Your task to perform on an android device: open app "Google Duo" (install if not already installed) Image 0: 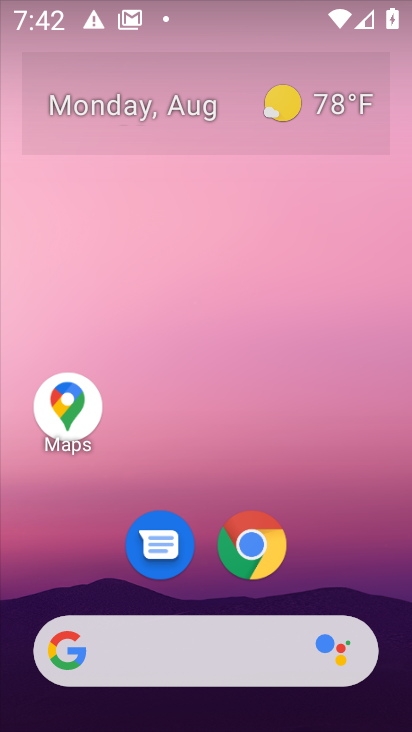
Step 0: press home button
Your task to perform on an android device: open app "Google Duo" (install if not already installed) Image 1: 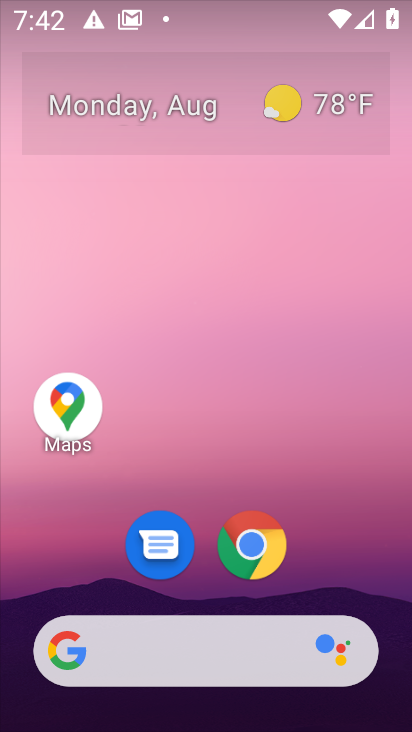
Step 1: drag from (364, 591) to (369, 129)
Your task to perform on an android device: open app "Google Duo" (install if not already installed) Image 2: 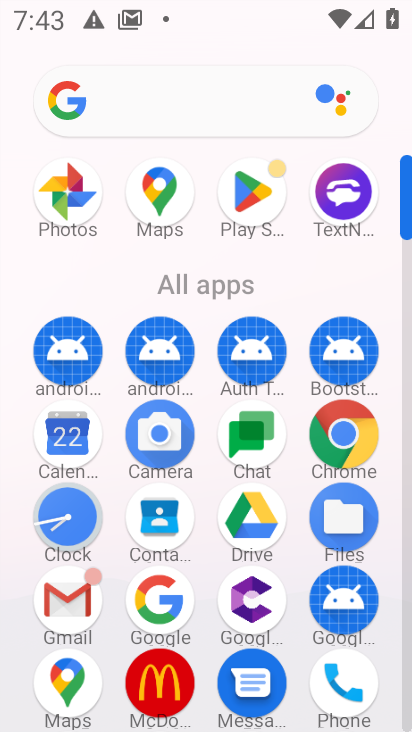
Step 2: click (256, 195)
Your task to perform on an android device: open app "Google Duo" (install if not already installed) Image 3: 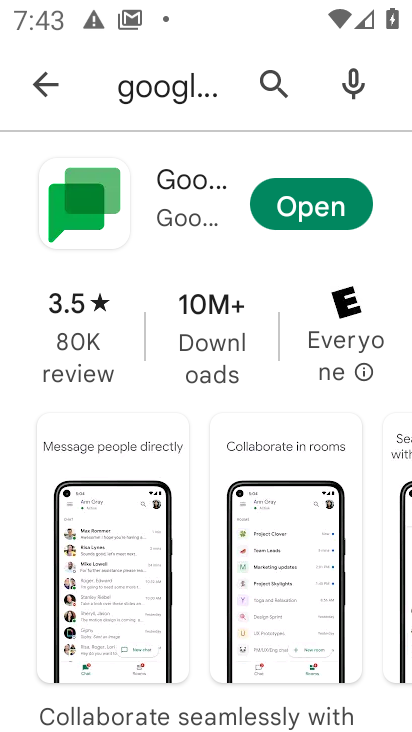
Step 3: press back button
Your task to perform on an android device: open app "Google Duo" (install if not already installed) Image 4: 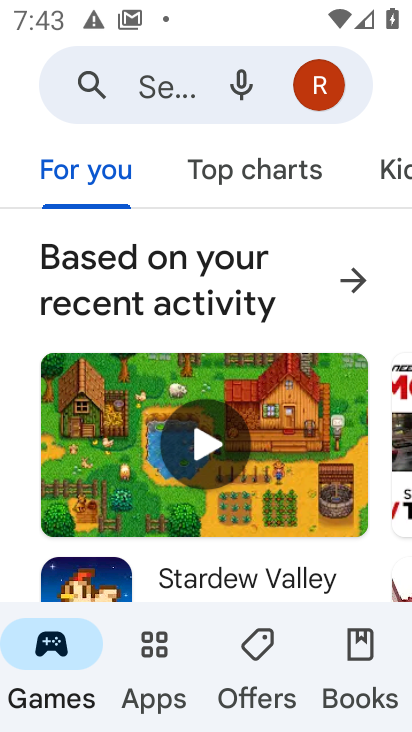
Step 4: click (159, 87)
Your task to perform on an android device: open app "Google Duo" (install if not already installed) Image 5: 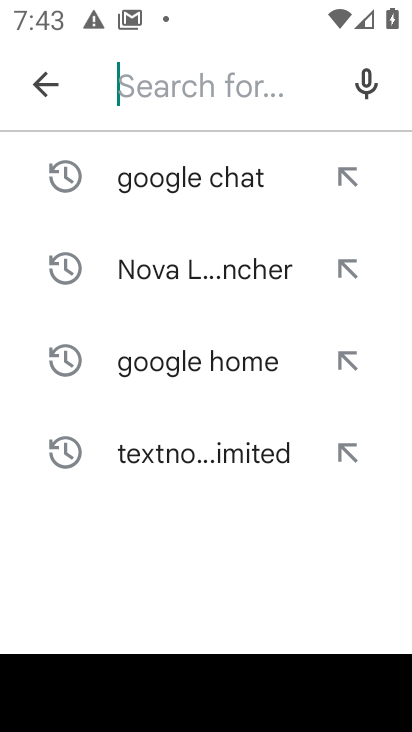
Step 5: press enter
Your task to perform on an android device: open app "Google Duo" (install if not already installed) Image 6: 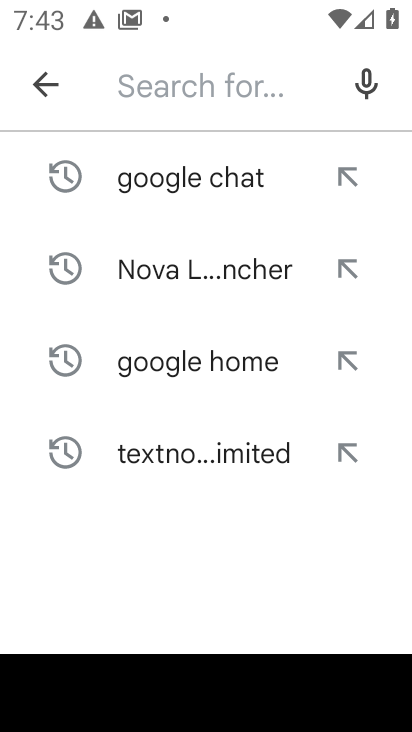
Step 6: type "google duo"
Your task to perform on an android device: open app "Google Duo" (install if not already installed) Image 7: 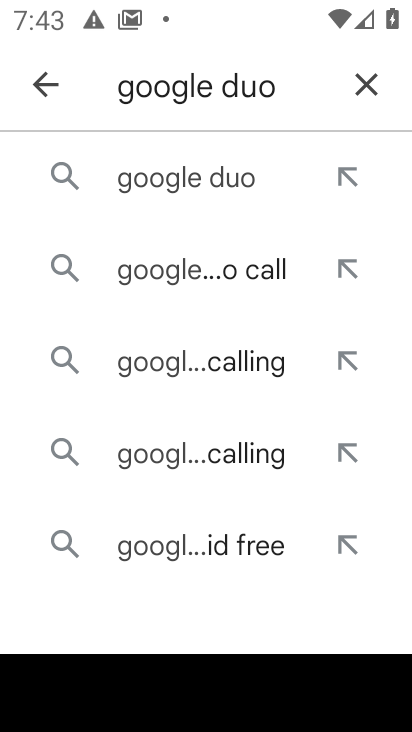
Step 7: click (205, 169)
Your task to perform on an android device: open app "Google Duo" (install if not already installed) Image 8: 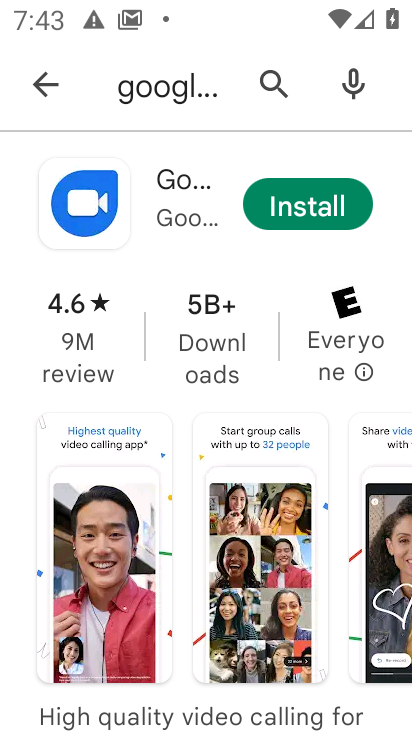
Step 8: click (317, 207)
Your task to perform on an android device: open app "Google Duo" (install if not already installed) Image 9: 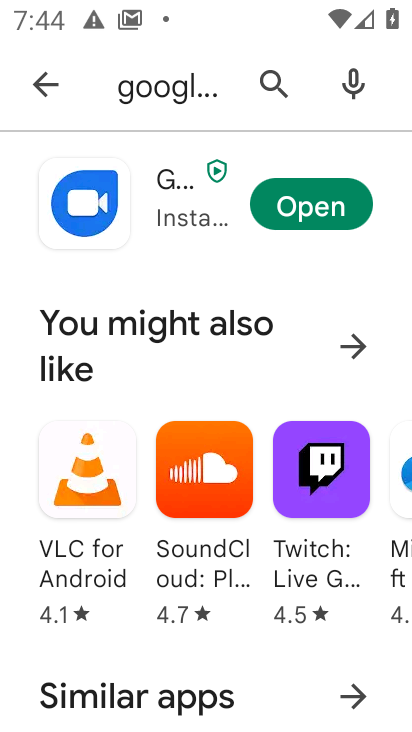
Step 9: click (317, 206)
Your task to perform on an android device: open app "Google Duo" (install if not already installed) Image 10: 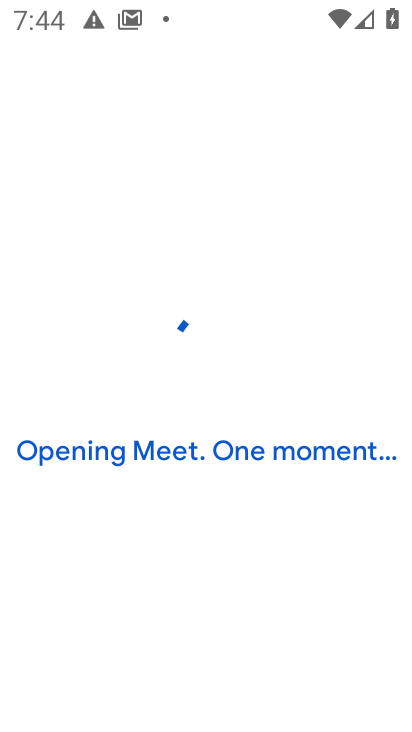
Step 10: task complete